Your task to perform on an android device: Open the phone app and click the voicemail tab. Image 0: 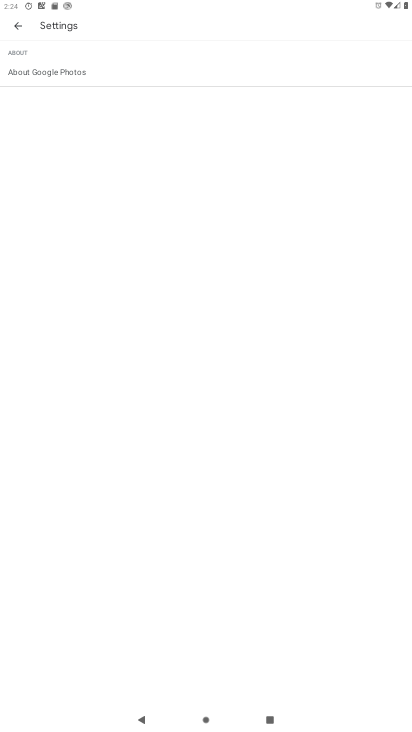
Step 0: drag from (296, 629) to (279, 145)
Your task to perform on an android device: Open the phone app and click the voicemail tab. Image 1: 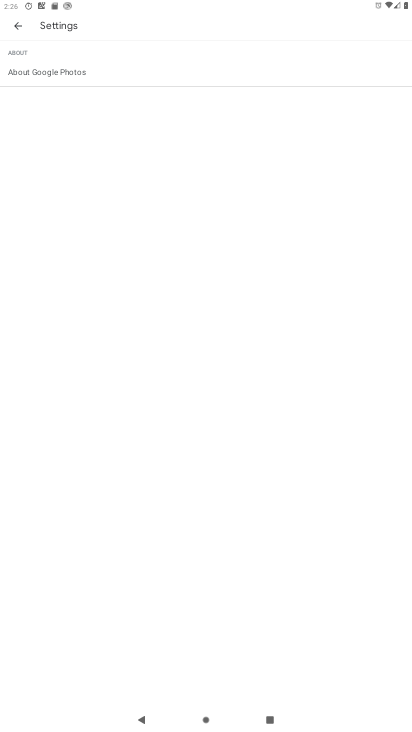
Step 1: press home button
Your task to perform on an android device: Open the phone app and click the voicemail tab. Image 2: 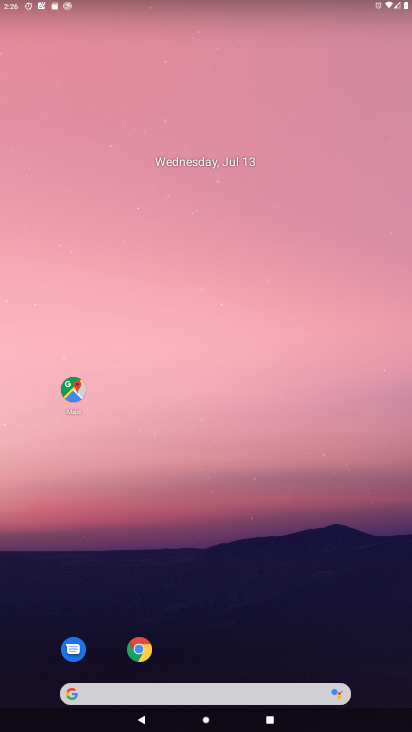
Step 2: drag from (327, 632) to (349, 104)
Your task to perform on an android device: Open the phone app and click the voicemail tab. Image 3: 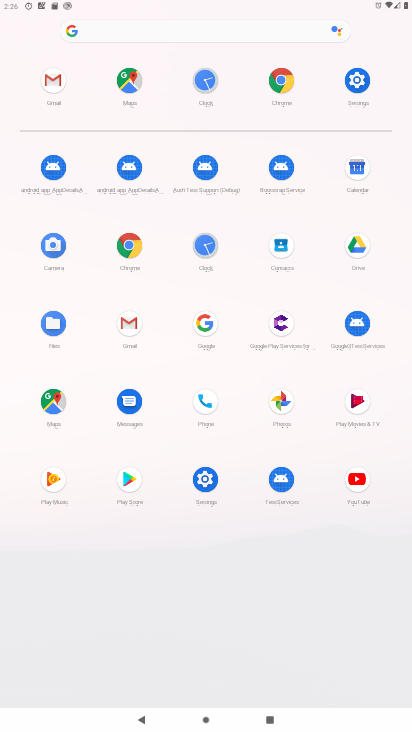
Step 3: press home button
Your task to perform on an android device: Open the phone app and click the voicemail tab. Image 4: 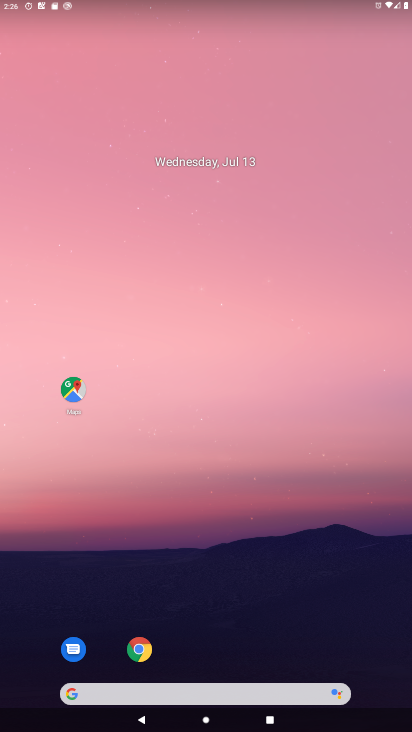
Step 4: drag from (270, 574) to (264, 184)
Your task to perform on an android device: Open the phone app and click the voicemail tab. Image 5: 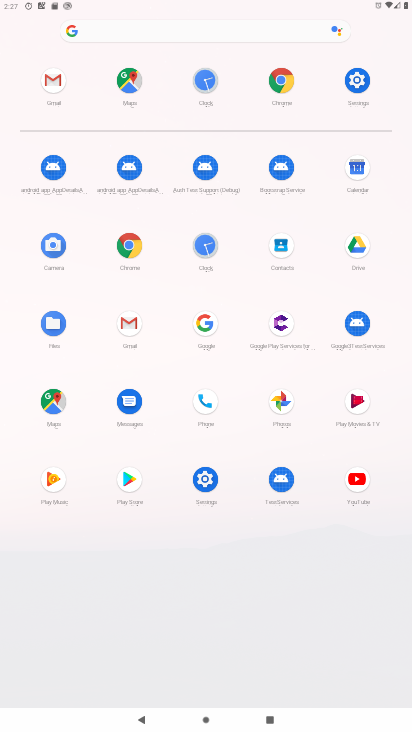
Step 5: drag from (357, 476) to (336, 600)
Your task to perform on an android device: Open the phone app and click the voicemail tab. Image 6: 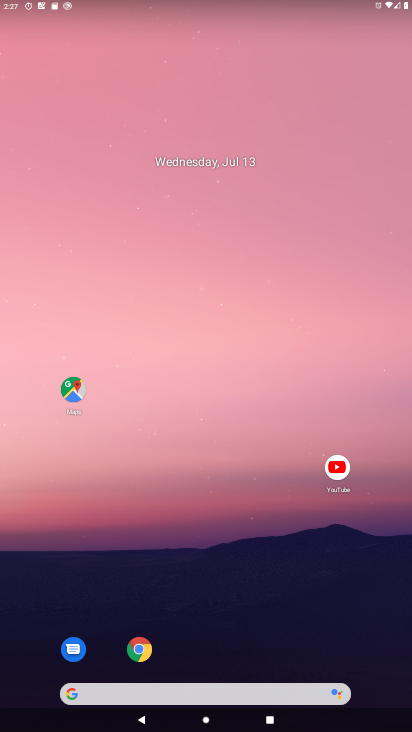
Step 6: click (249, 617)
Your task to perform on an android device: Open the phone app and click the voicemail tab. Image 7: 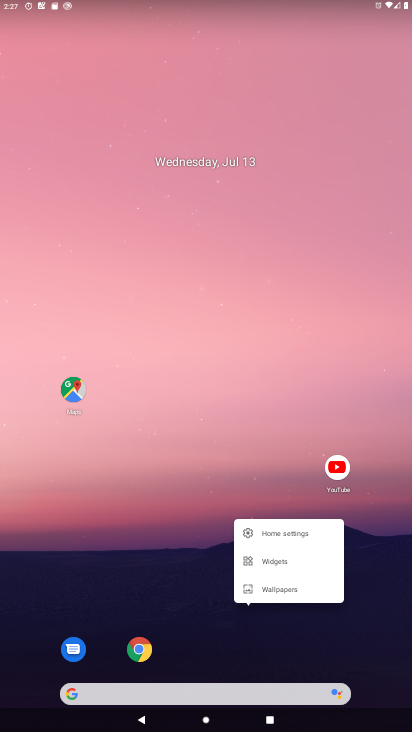
Step 7: click (152, 601)
Your task to perform on an android device: Open the phone app and click the voicemail tab. Image 8: 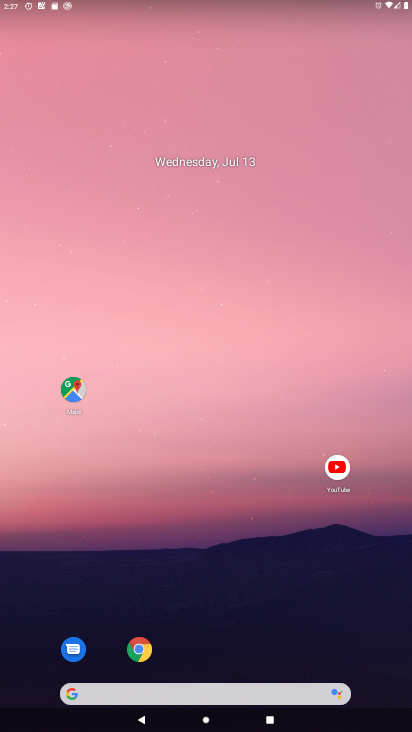
Step 8: drag from (168, 686) to (297, 224)
Your task to perform on an android device: Open the phone app and click the voicemail tab. Image 9: 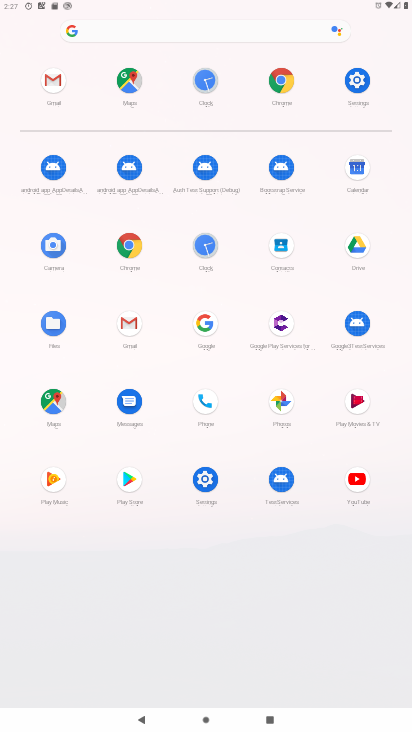
Step 9: click (212, 402)
Your task to perform on an android device: Open the phone app and click the voicemail tab. Image 10: 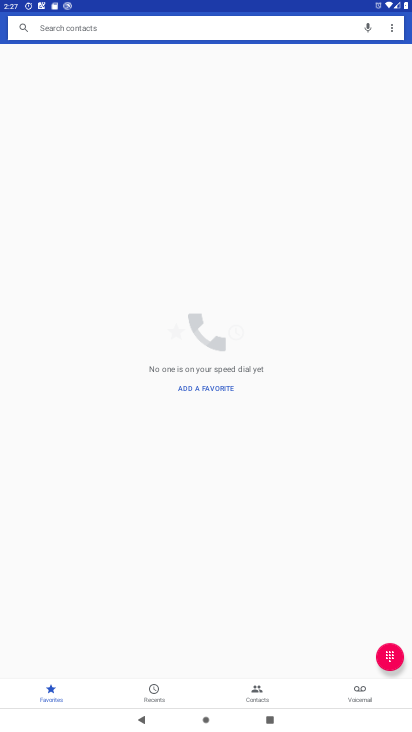
Step 10: click (358, 701)
Your task to perform on an android device: Open the phone app and click the voicemail tab. Image 11: 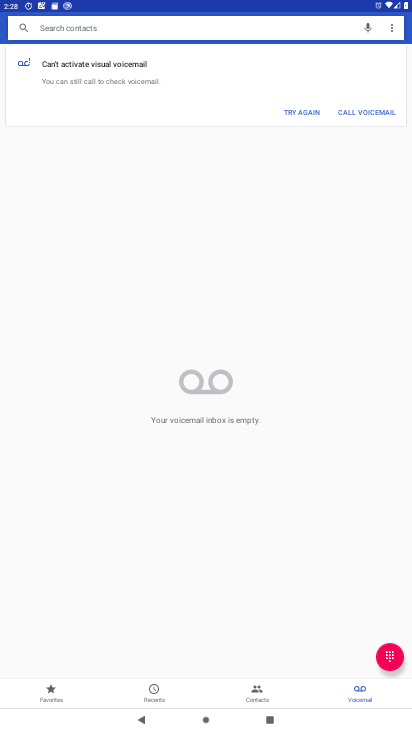
Step 11: task complete